Your task to perform on an android device: Open ESPN.com Image 0: 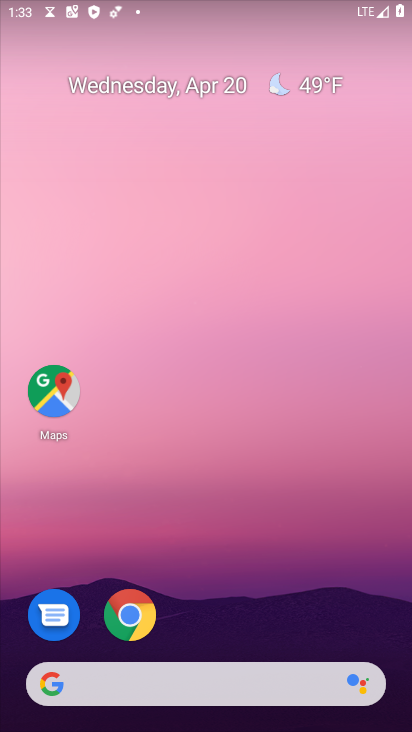
Step 0: click (108, 616)
Your task to perform on an android device: Open ESPN.com Image 1: 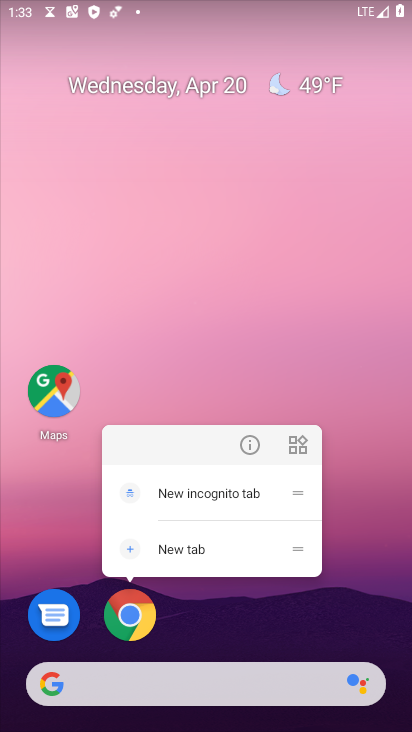
Step 1: click (148, 609)
Your task to perform on an android device: Open ESPN.com Image 2: 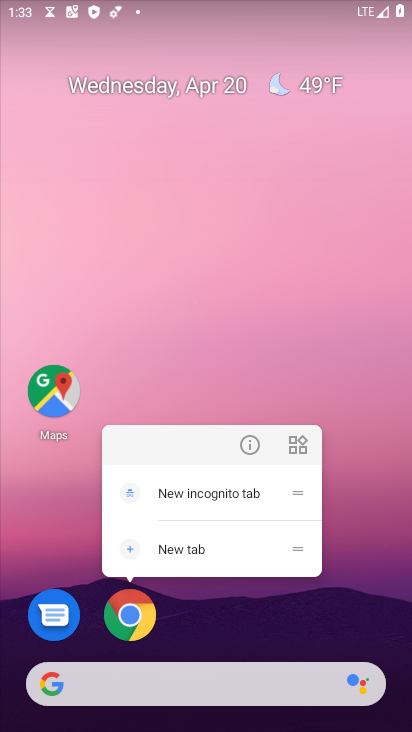
Step 2: click (135, 609)
Your task to perform on an android device: Open ESPN.com Image 3: 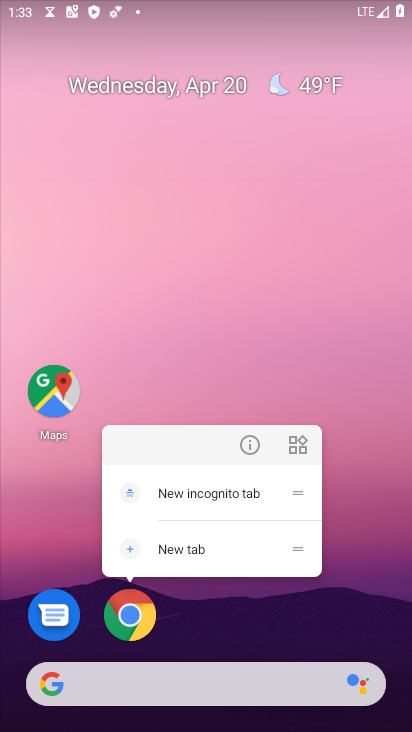
Step 3: click (126, 611)
Your task to perform on an android device: Open ESPN.com Image 4: 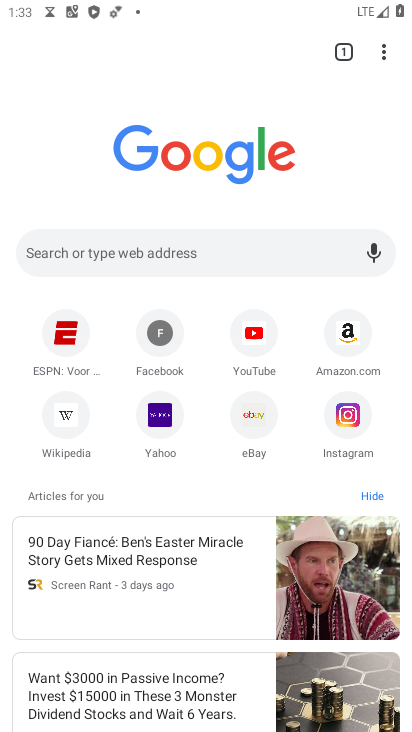
Step 4: click (64, 348)
Your task to perform on an android device: Open ESPN.com Image 5: 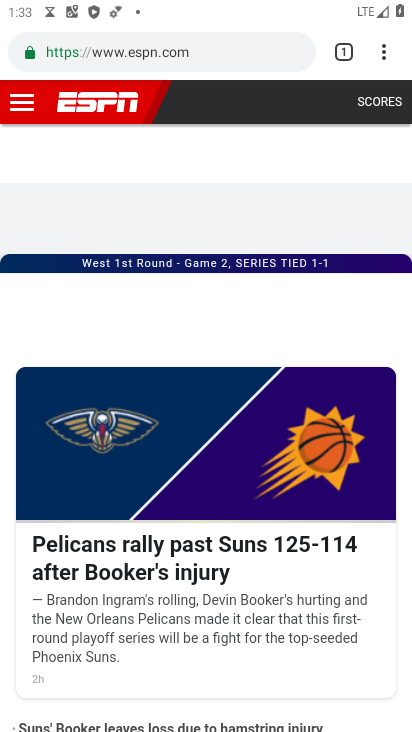
Step 5: task complete